Your task to perform on an android device: What's the weather today? Image 0: 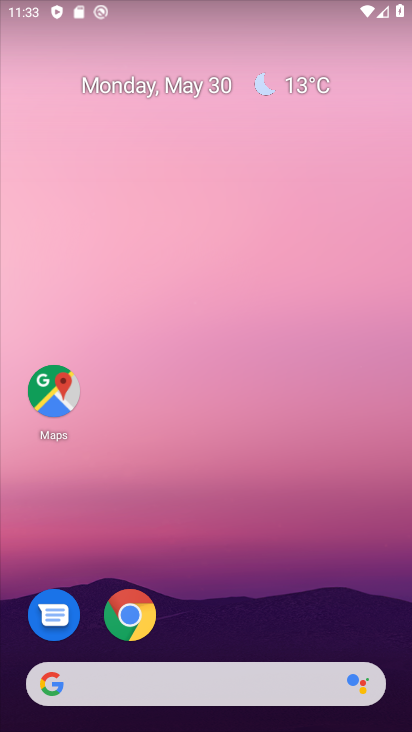
Step 0: click (307, 87)
Your task to perform on an android device: What's the weather today? Image 1: 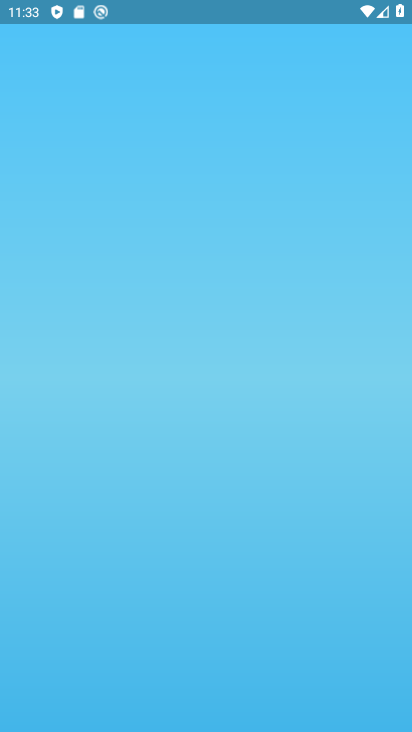
Step 1: click (300, 88)
Your task to perform on an android device: What's the weather today? Image 2: 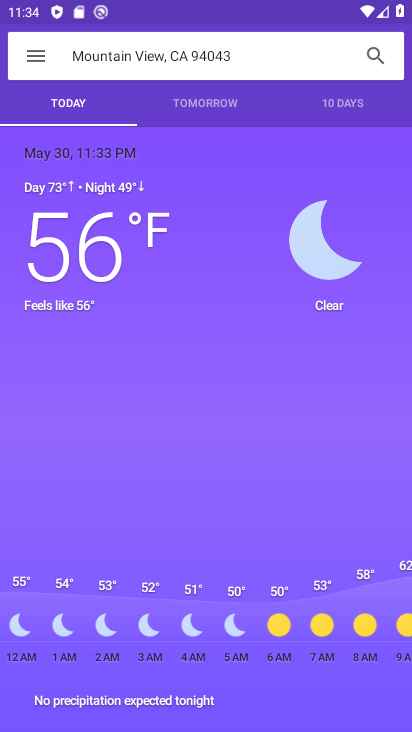
Step 2: task complete